Your task to perform on an android device: see tabs open on other devices in the chrome app Image 0: 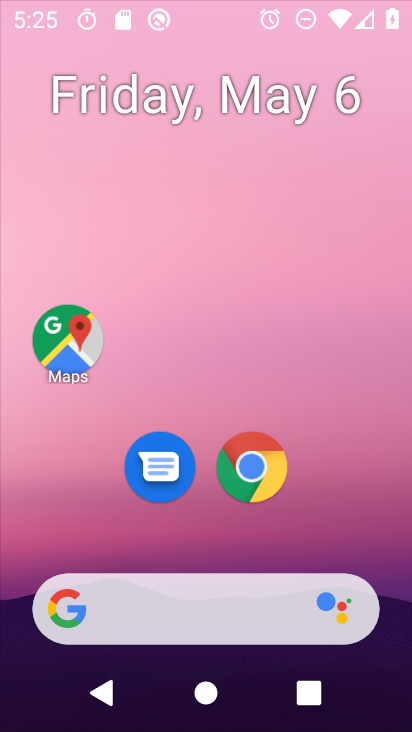
Step 0: drag from (328, 406) to (303, 168)
Your task to perform on an android device: see tabs open on other devices in the chrome app Image 1: 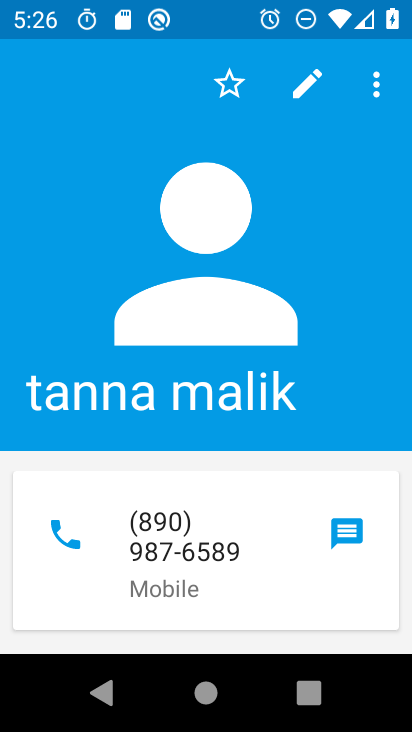
Step 1: press back button
Your task to perform on an android device: see tabs open on other devices in the chrome app Image 2: 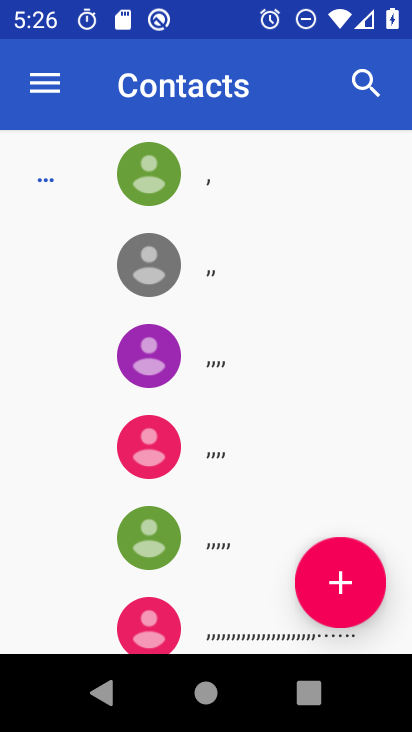
Step 2: press home button
Your task to perform on an android device: see tabs open on other devices in the chrome app Image 3: 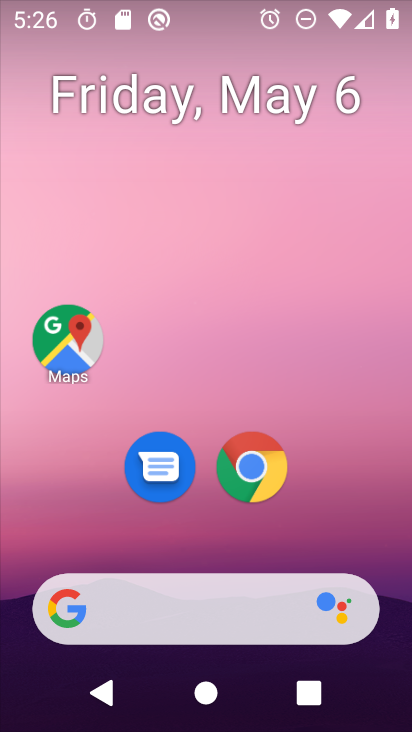
Step 3: drag from (321, 567) to (332, 191)
Your task to perform on an android device: see tabs open on other devices in the chrome app Image 4: 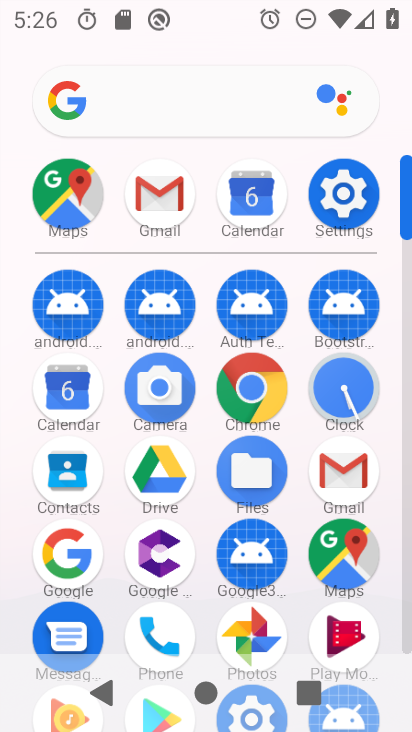
Step 4: click (274, 388)
Your task to perform on an android device: see tabs open on other devices in the chrome app Image 5: 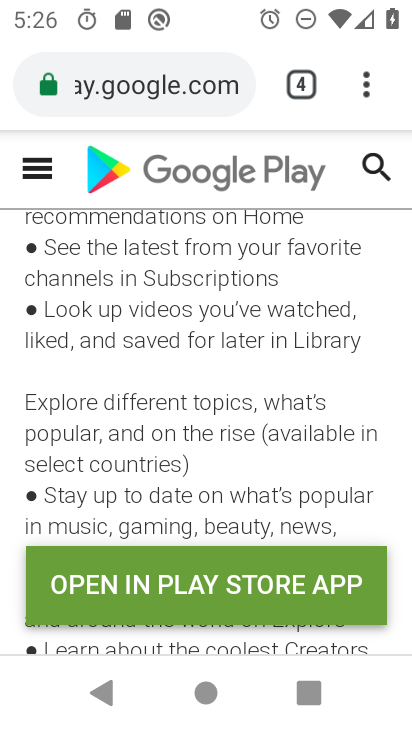
Step 5: click (367, 84)
Your task to perform on an android device: see tabs open on other devices in the chrome app Image 6: 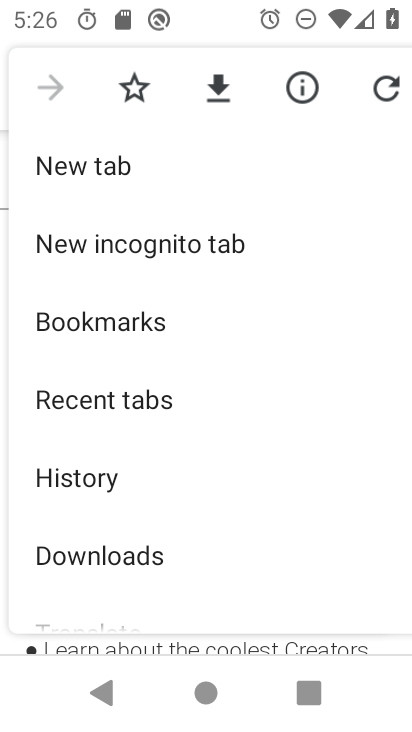
Step 6: drag from (178, 535) to (168, 181)
Your task to perform on an android device: see tabs open on other devices in the chrome app Image 7: 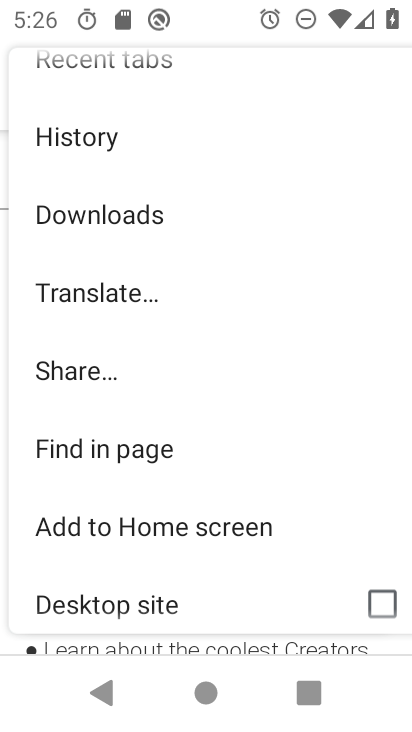
Step 7: drag from (183, 212) to (164, 467)
Your task to perform on an android device: see tabs open on other devices in the chrome app Image 8: 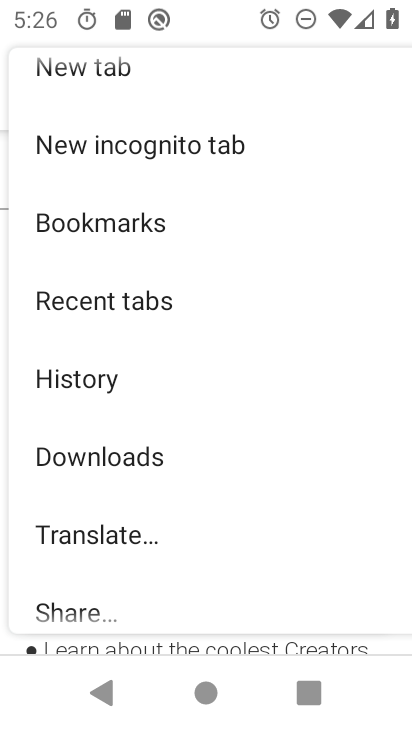
Step 8: drag from (253, 198) to (228, 517)
Your task to perform on an android device: see tabs open on other devices in the chrome app Image 9: 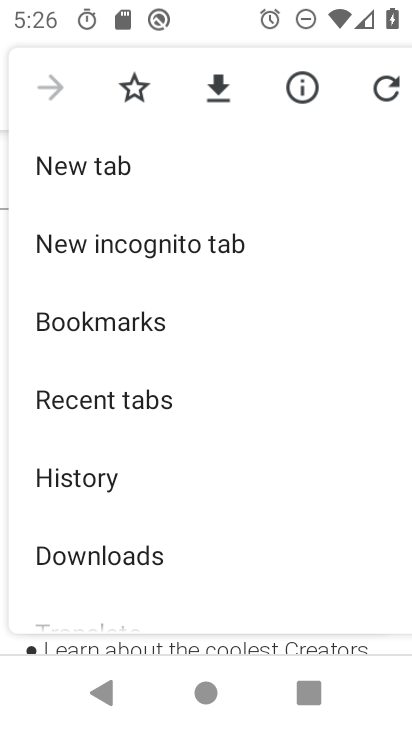
Step 9: click (96, 418)
Your task to perform on an android device: see tabs open on other devices in the chrome app Image 10: 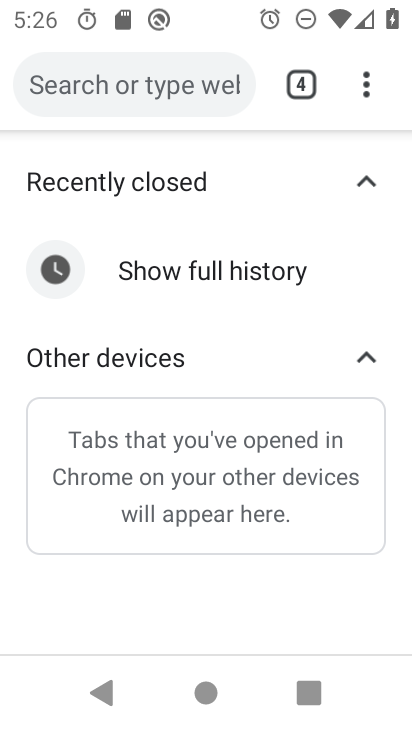
Step 10: task complete